Your task to perform on an android device: Toggle the flashlight Image 0: 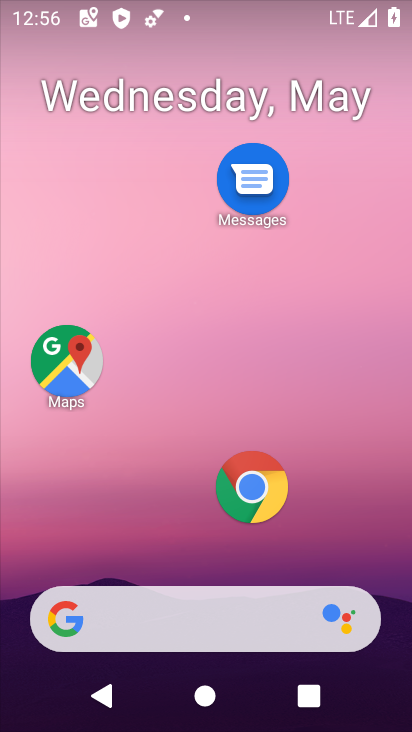
Step 0: drag from (152, 548) to (217, 207)
Your task to perform on an android device: Toggle the flashlight Image 1: 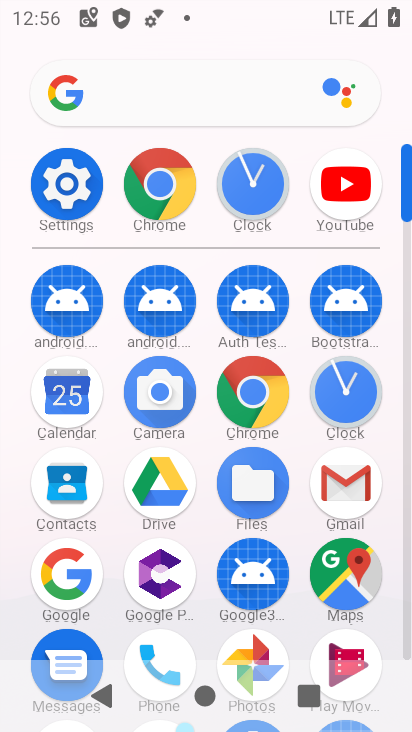
Step 1: click (189, 105)
Your task to perform on an android device: Toggle the flashlight Image 2: 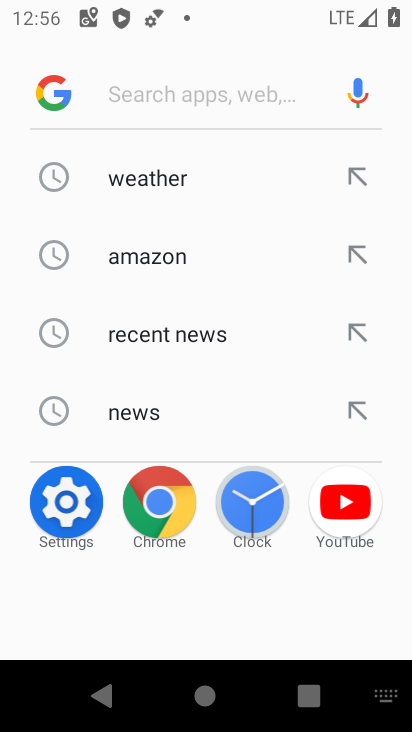
Step 2: type "flashloght"
Your task to perform on an android device: Toggle the flashlight Image 3: 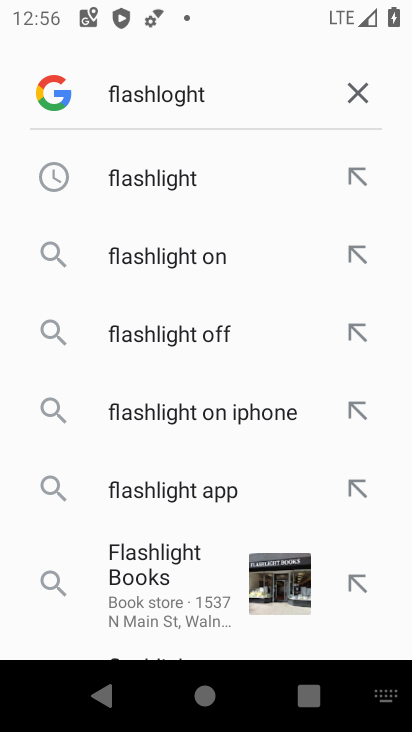
Step 3: click (216, 179)
Your task to perform on an android device: Toggle the flashlight Image 4: 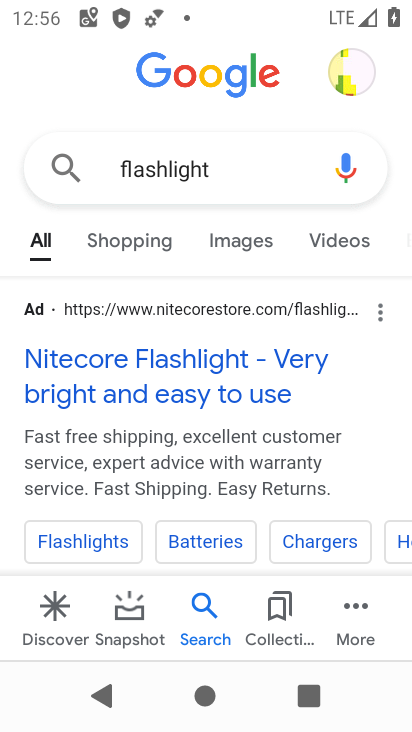
Step 4: task complete